Your task to perform on an android device: Open privacy settings Image 0: 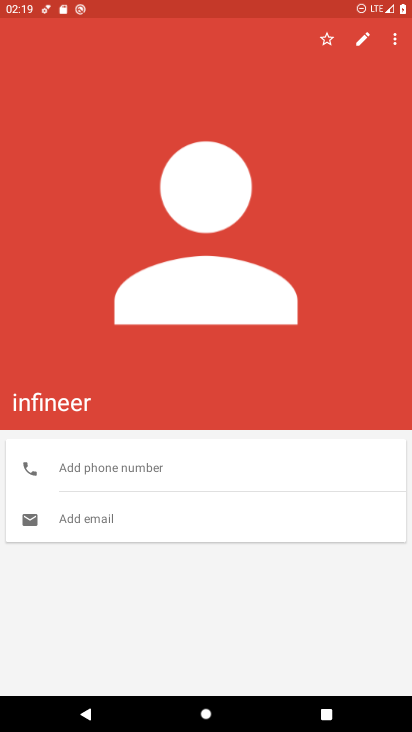
Step 0: press home button
Your task to perform on an android device: Open privacy settings Image 1: 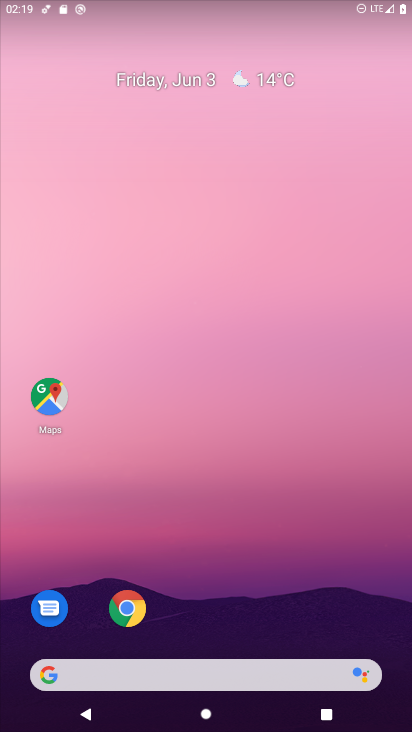
Step 1: drag from (249, 429) to (228, 53)
Your task to perform on an android device: Open privacy settings Image 2: 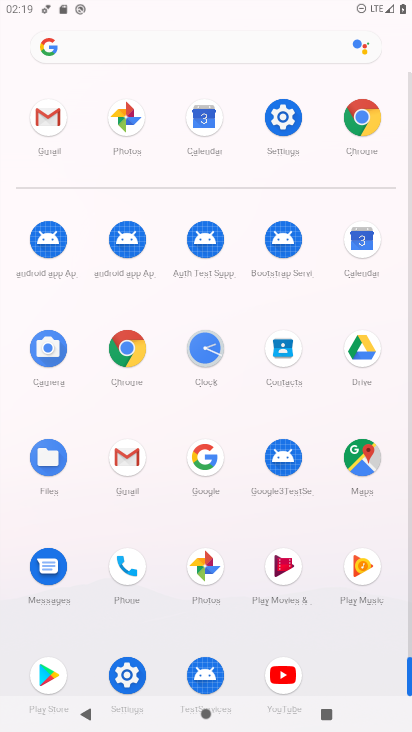
Step 2: click (288, 124)
Your task to perform on an android device: Open privacy settings Image 3: 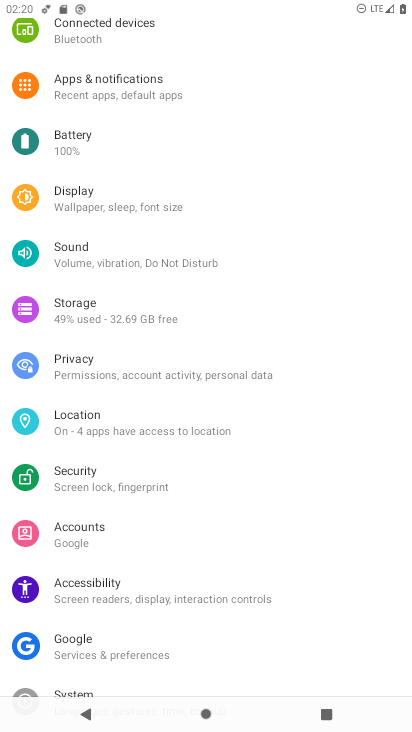
Step 3: drag from (145, 526) to (121, 466)
Your task to perform on an android device: Open privacy settings Image 4: 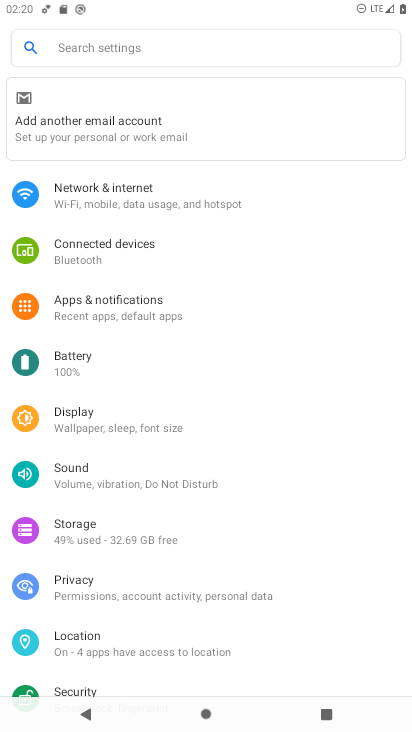
Step 4: click (76, 591)
Your task to perform on an android device: Open privacy settings Image 5: 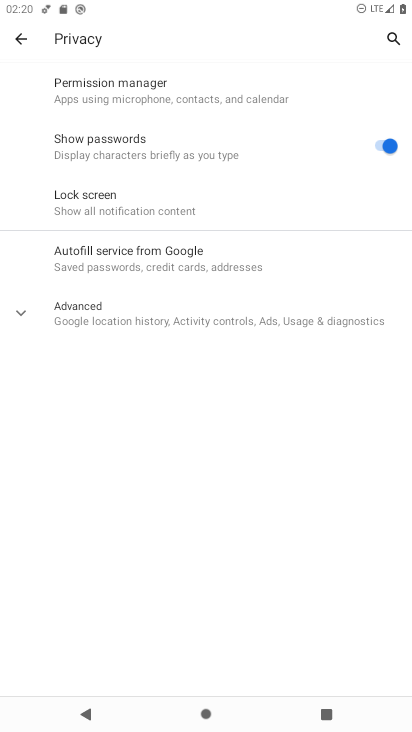
Step 5: task complete